Your task to perform on an android device: turn off data saver in the chrome app Image 0: 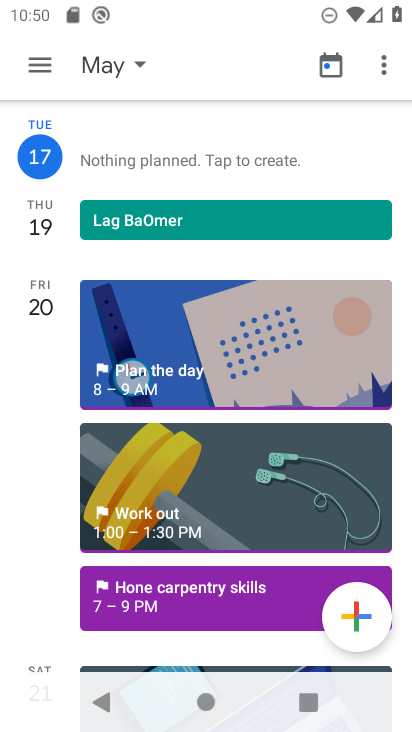
Step 0: press home button
Your task to perform on an android device: turn off data saver in the chrome app Image 1: 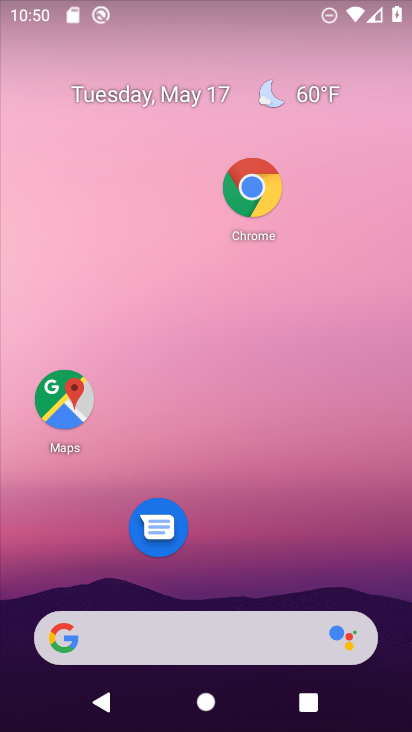
Step 1: drag from (353, 490) to (297, 321)
Your task to perform on an android device: turn off data saver in the chrome app Image 2: 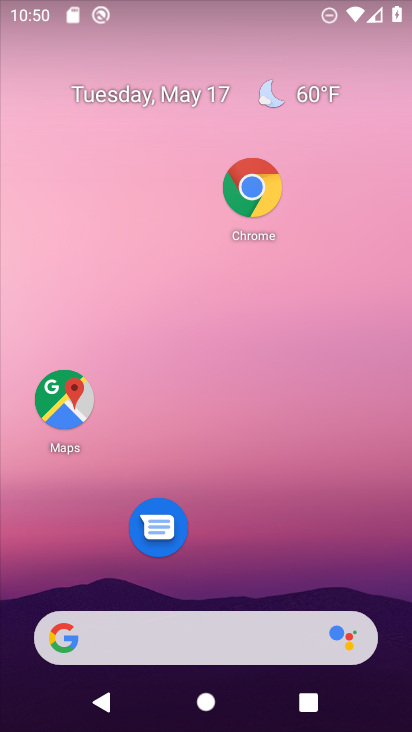
Step 2: click (261, 184)
Your task to perform on an android device: turn off data saver in the chrome app Image 3: 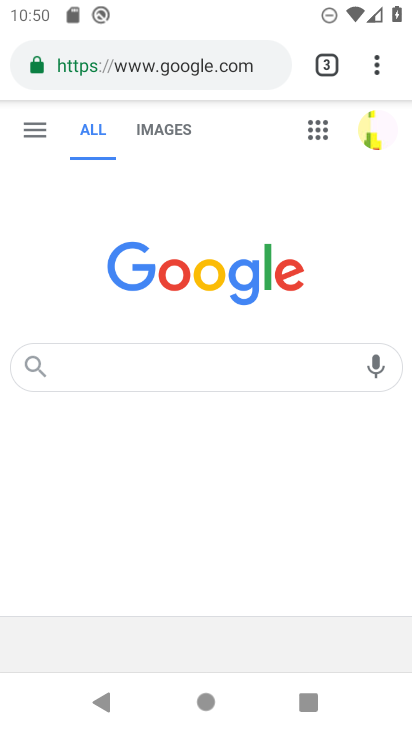
Step 3: click (371, 65)
Your task to perform on an android device: turn off data saver in the chrome app Image 4: 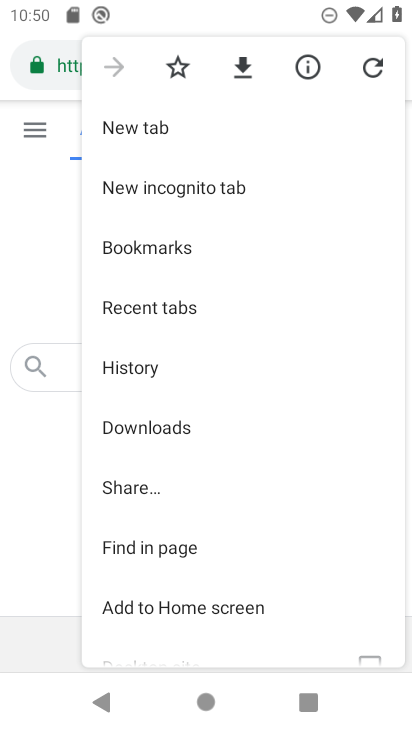
Step 4: drag from (217, 450) to (213, 254)
Your task to perform on an android device: turn off data saver in the chrome app Image 5: 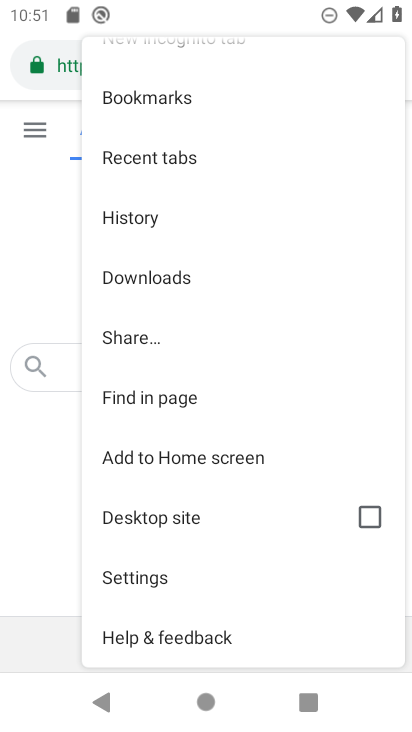
Step 5: click (233, 593)
Your task to perform on an android device: turn off data saver in the chrome app Image 6: 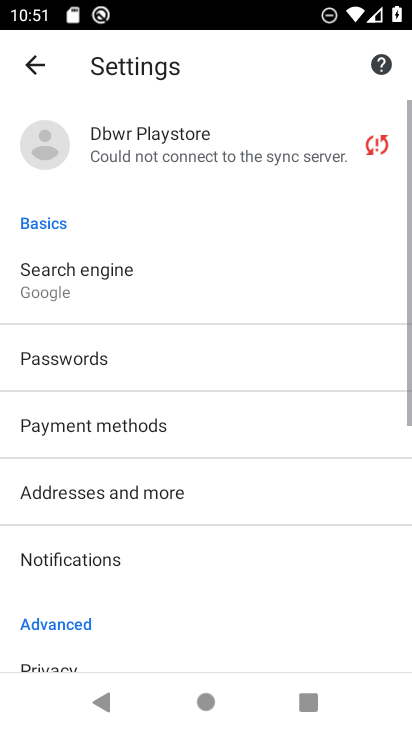
Step 6: drag from (233, 593) to (207, 316)
Your task to perform on an android device: turn off data saver in the chrome app Image 7: 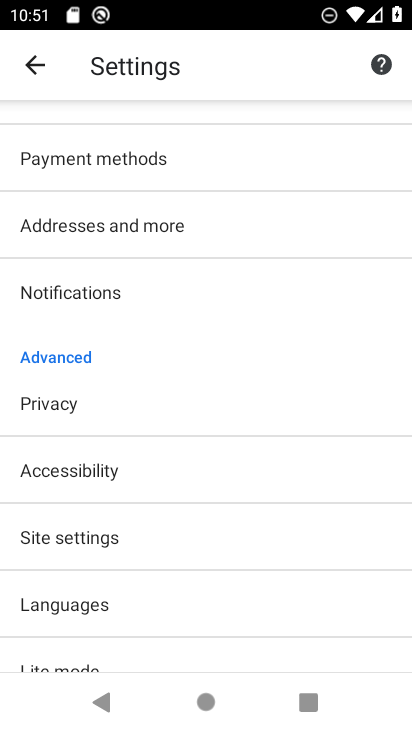
Step 7: drag from (231, 517) to (206, 306)
Your task to perform on an android device: turn off data saver in the chrome app Image 8: 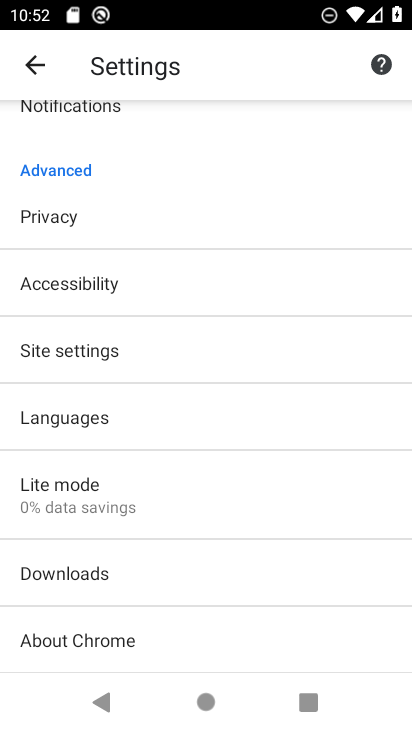
Step 8: click (156, 488)
Your task to perform on an android device: turn off data saver in the chrome app Image 9: 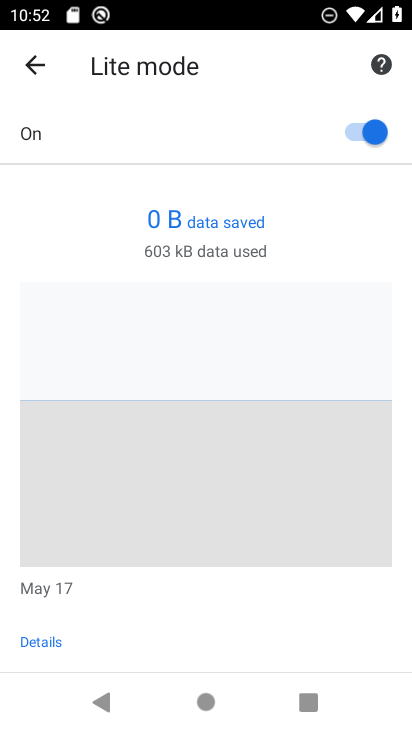
Step 9: click (369, 137)
Your task to perform on an android device: turn off data saver in the chrome app Image 10: 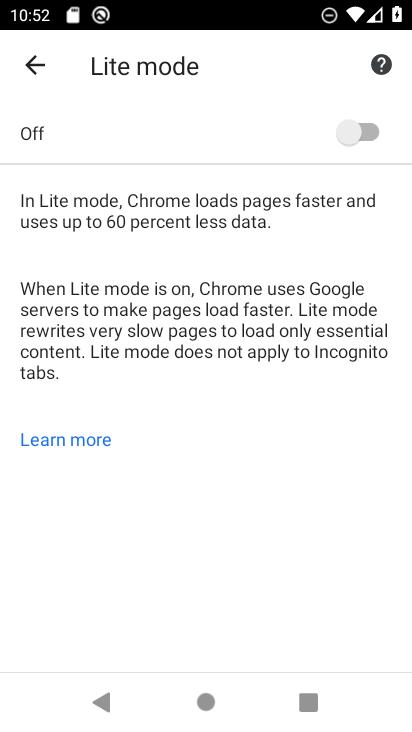
Step 10: task complete